Your task to perform on an android device: Open Reddit.com Image 0: 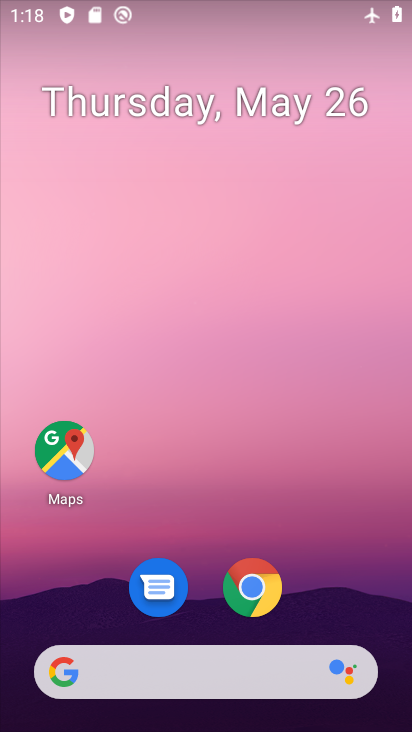
Step 0: drag from (327, 549) to (228, 128)
Your task to perform on an android device: Open Reddit.com Image 1: 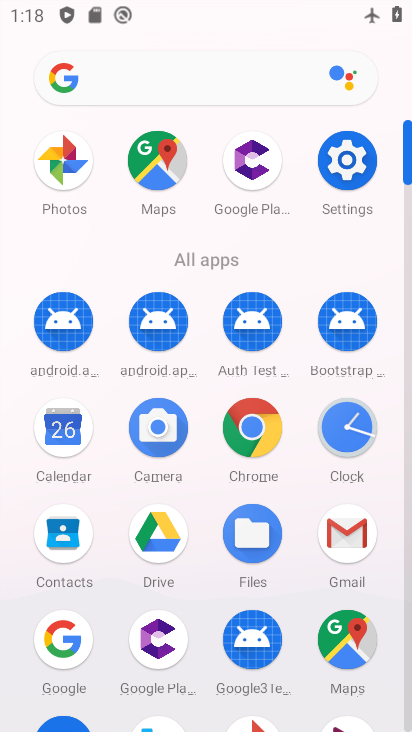
Step 1: drag from (16, 568) to (5, 228)
Your task to perform on an android device: Open Reddit.com Image 2: 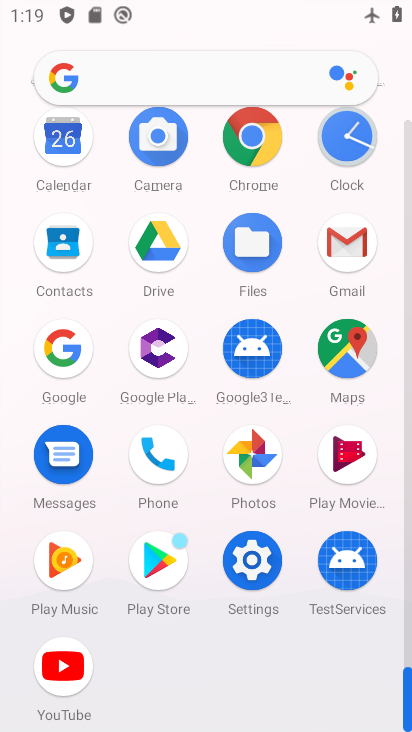
Step 2: click (255, 135)
Your task to perform on an android device: Open Reddit.com Image 3: 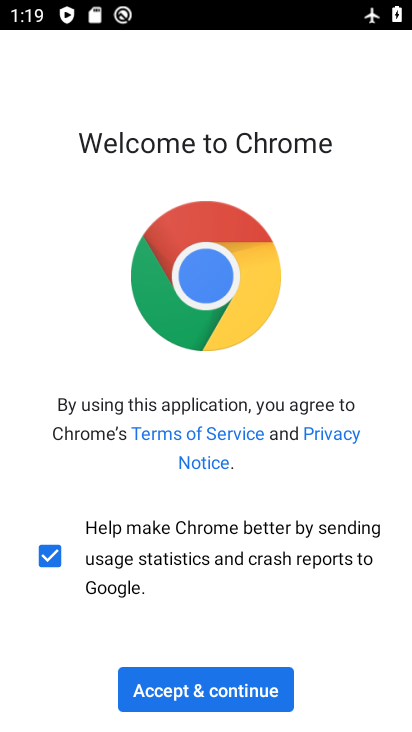
Step 3: click (211, 668)
Your task to perform on an android device: Open Reddit.com Image 4: 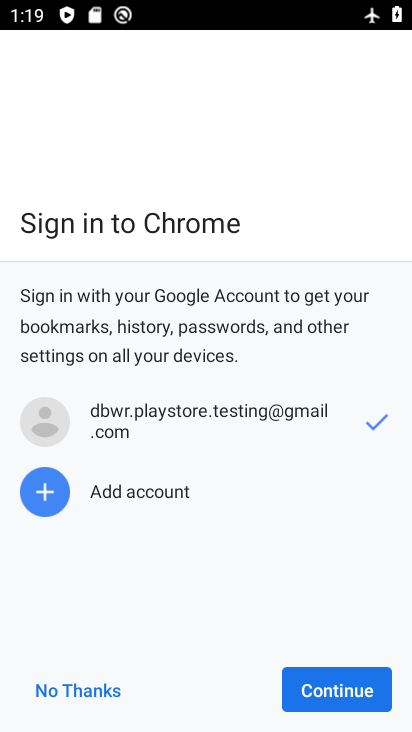
Step 4: click (304, 682)
Your task to perform on an android device: Open Reddit.com Image 5: 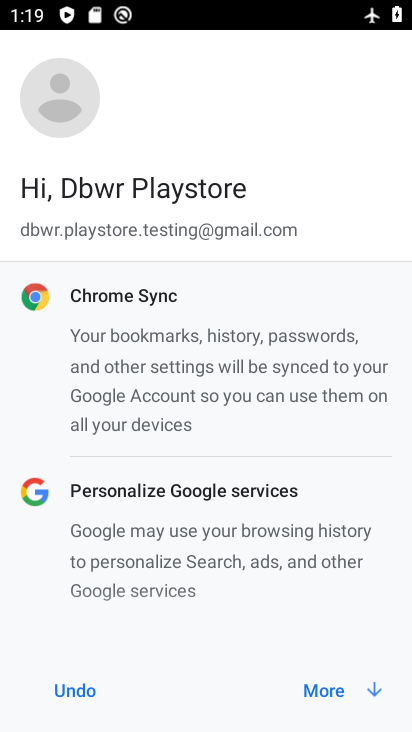
Step 5: click (315, 682)
Your task to perform on an android device: Open Reddit.com Image 6: 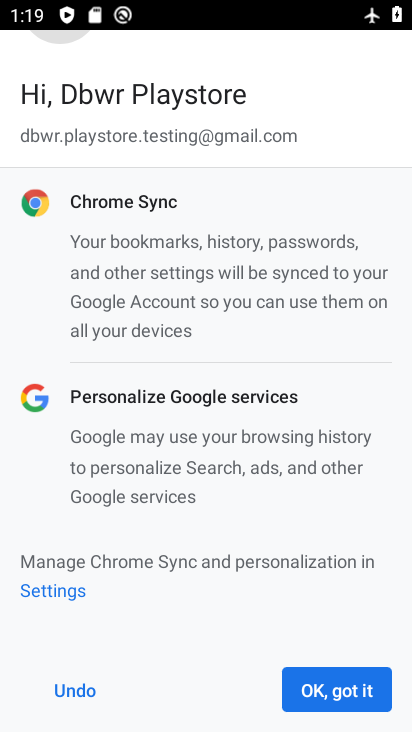
Step 6: click (334, 695)
Your task to perform on an android device: Open Reddit.com Image 7: 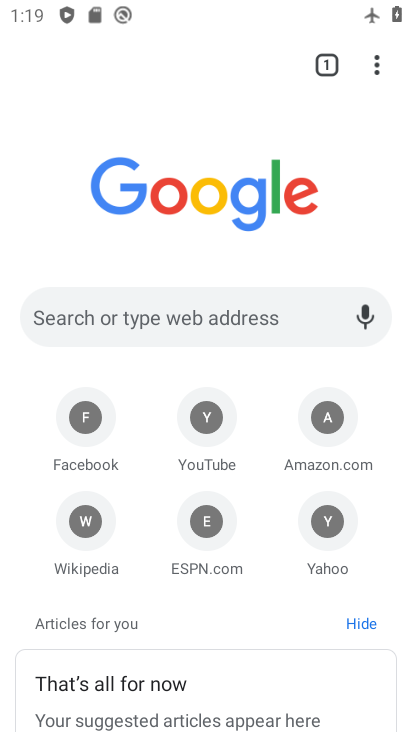
Step 7: click (124, 321)
Your task to perform on an android device: Open Reddit.com Image 8: 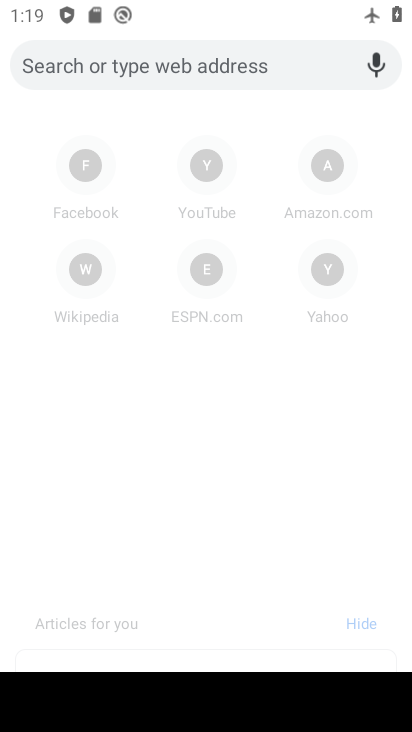
Step 8: type "Reddit.com"
Your task to perform on an android device: Open Reddit.com Image 9: 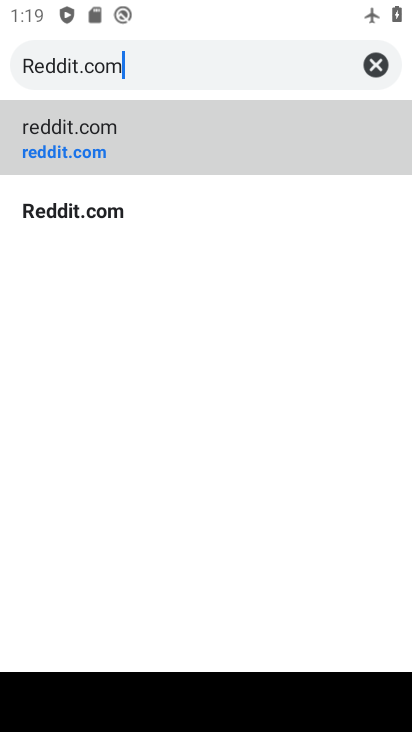
Step 9: type ""
Your task to perform on an android device: Open Reddit.com Image 10: 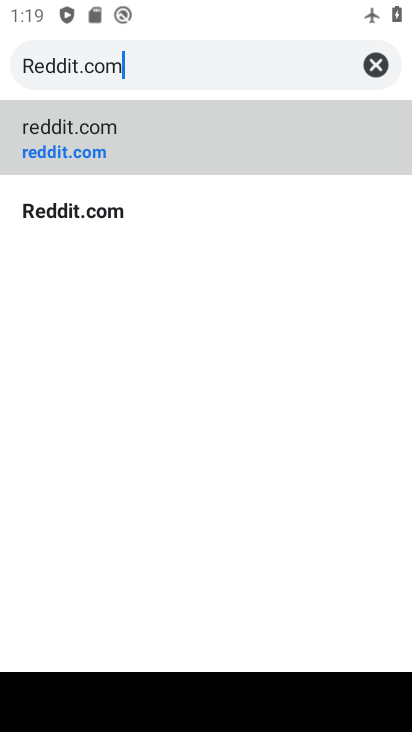
Step 10: click (136, 150)
Your task to perform on an android device: Open Reddit.com Image 11: 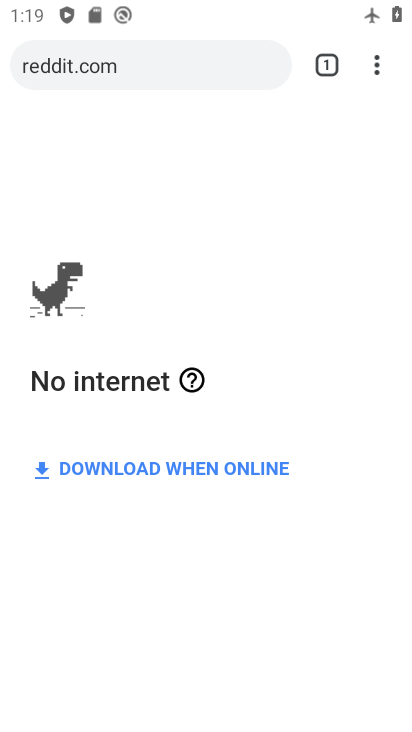
Step 11: task complete